Your task to perform on an android device: What's on my calendar today? Image 0: 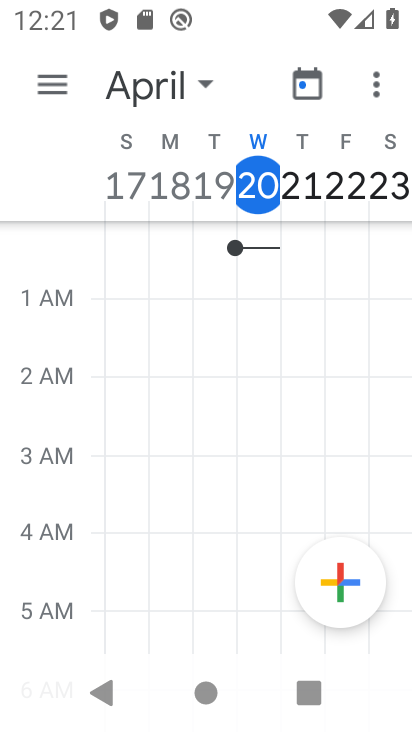
Step 0: click (257, 241)
Your task to perform on an android device: What's on my calendar today? Image 1: 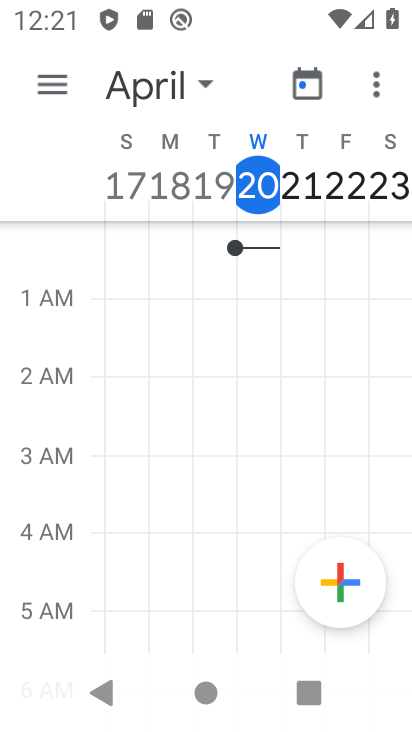
Step 1: task complete